Your task to perform on an android device: turn on wifi Image 0: 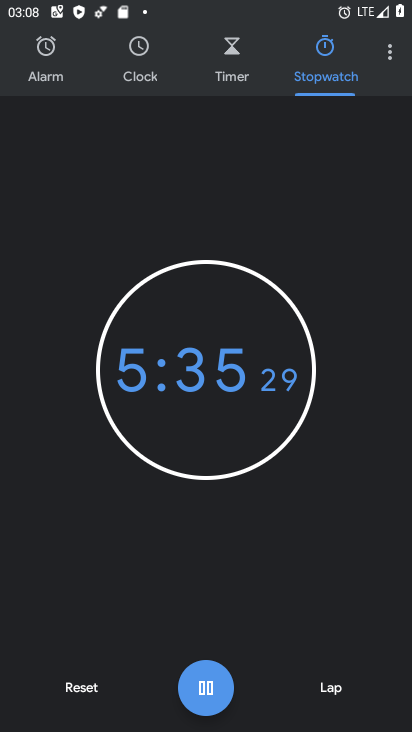
Step 0: press home button
Your task to perform on an android device: turn on wifi Image 1: 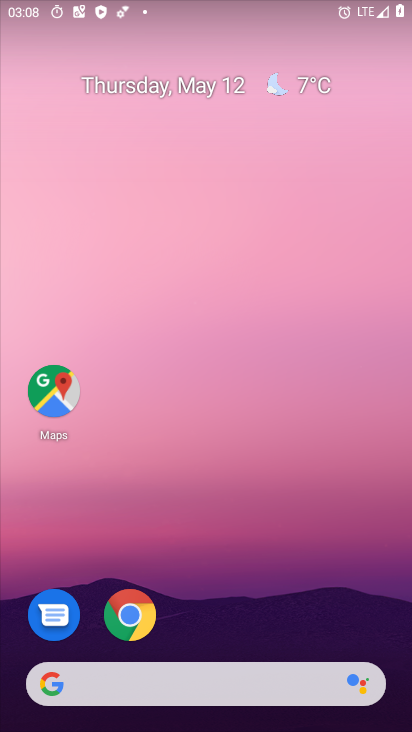
Step 1: drag from (171, 678) to (196, 95)
Your task to perform on an android device: turn on wifi Image 2: 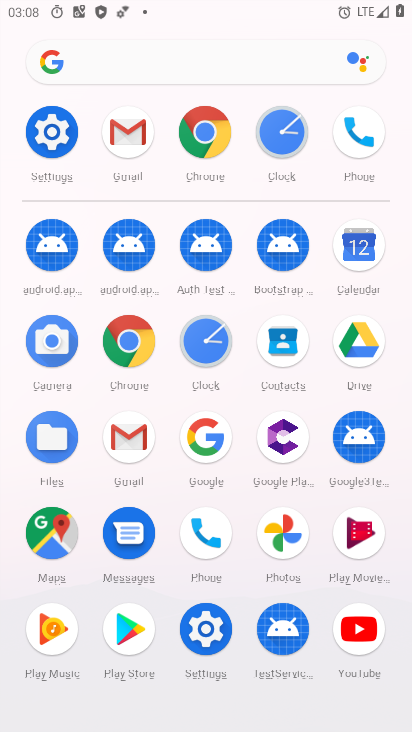
Step 2: click (65, 118)
Your task to perform on an android device: turn on wifi Image 3: 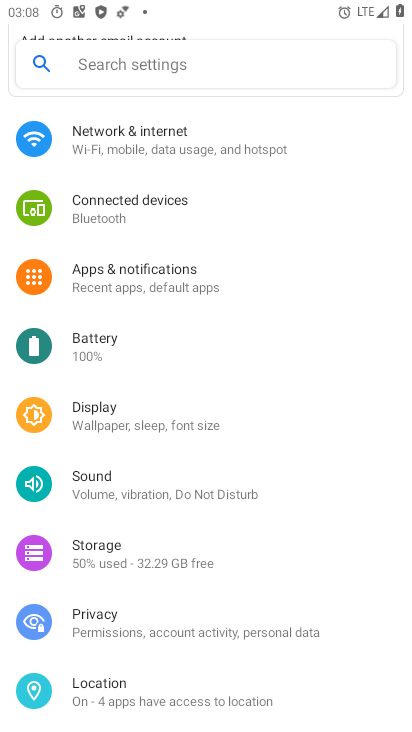
Step 3: drag from (179, 174) to (195, 355)
Your task to perform on an android device: turn on wifi Image 4: 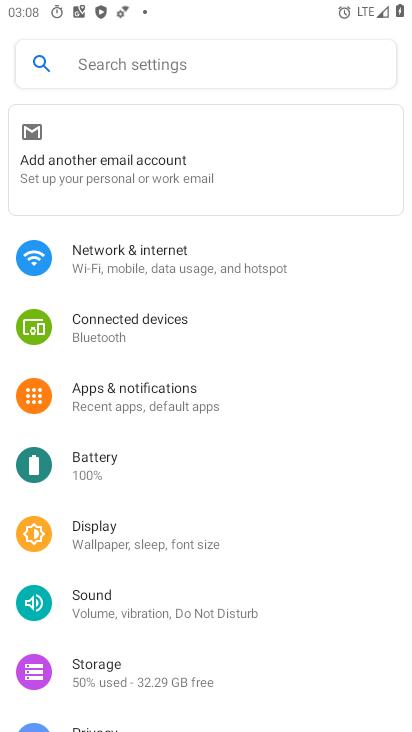
Step 4: click (156, 273)
Your task to perform on an android device: turn on wifi Image 5: 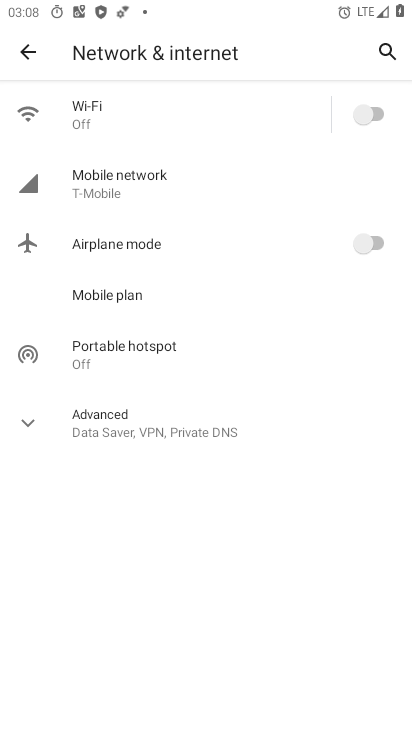
Step 5: click (367, 106)
Your task to perform on an android device: turn on wifi Image 6: 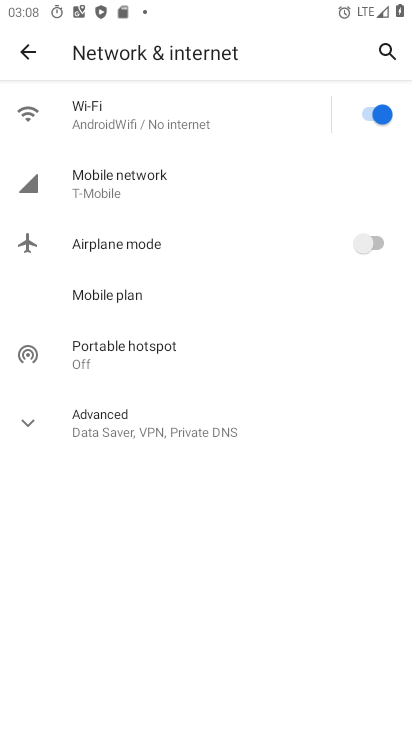
Step 6: task complete